Your task to perform on an android device: uninstall "NewsBreak: Local News & Alerts" Image 0: 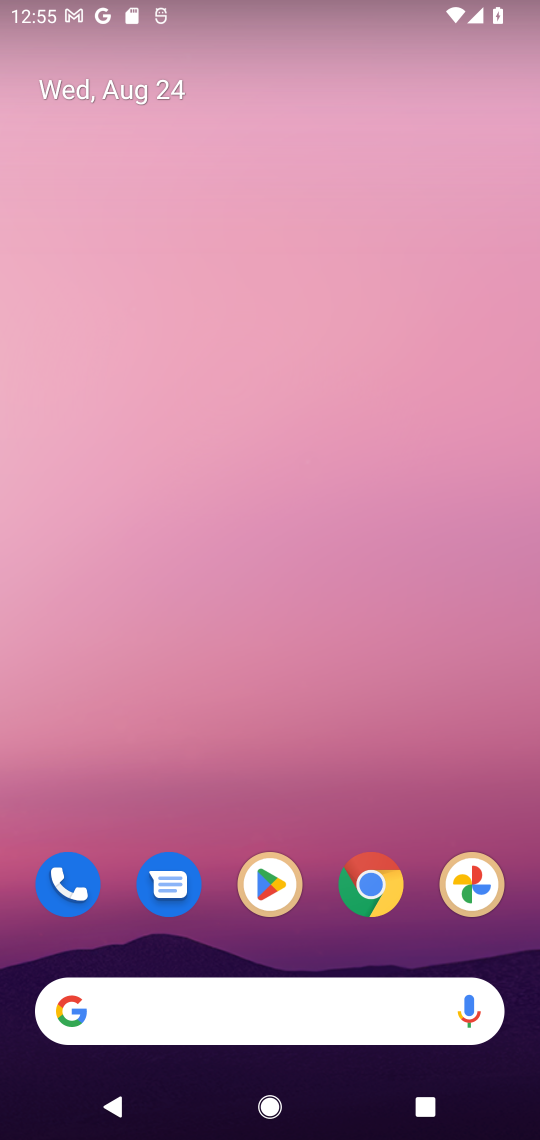
Step 0: drag from (261, 1009) to (221, 152)
Your task to perform on an android device: uninstall "NewsBreak: Local News & Alerts" Image 1: 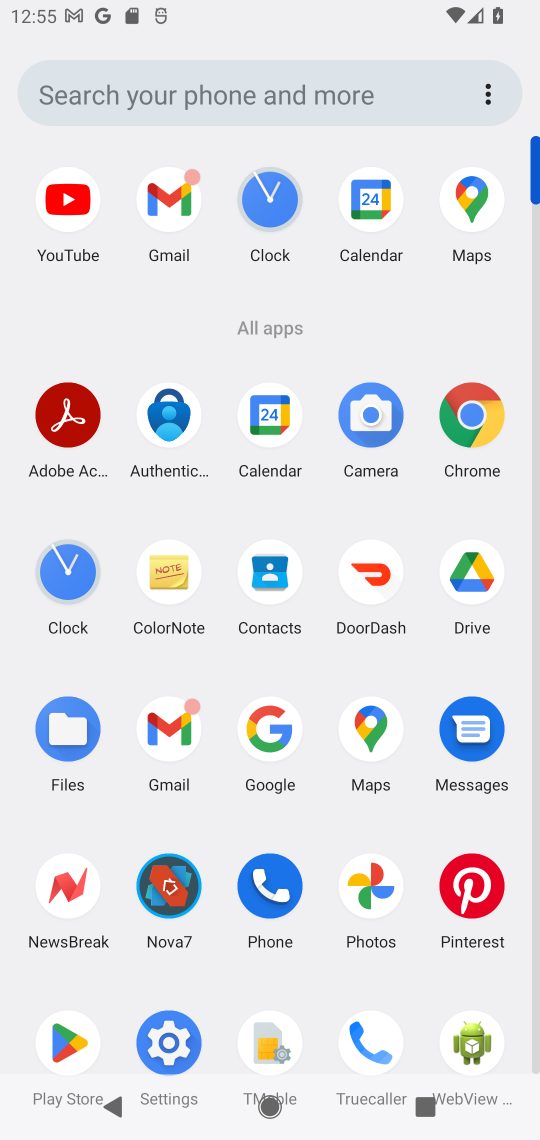
Step 1: click (78, 1044)
Your task to perform on an android device: uninstall "NewsBreak: Local News & Alerts" Image 2: 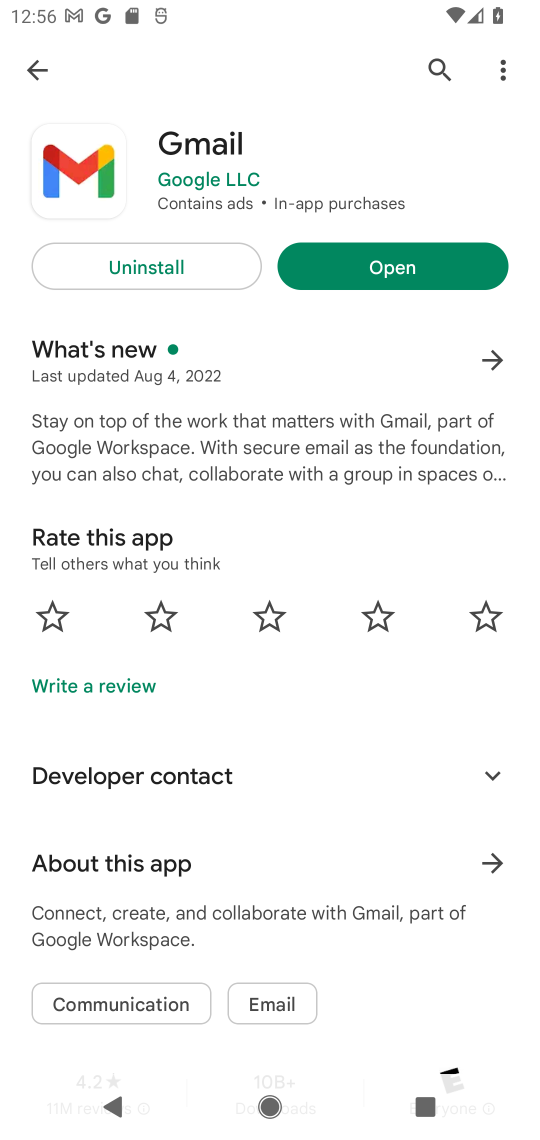
Step 2: press back button
Your task to perform on an android device: uninstall "NewsBreak: Local News & Alerts" Image 3: 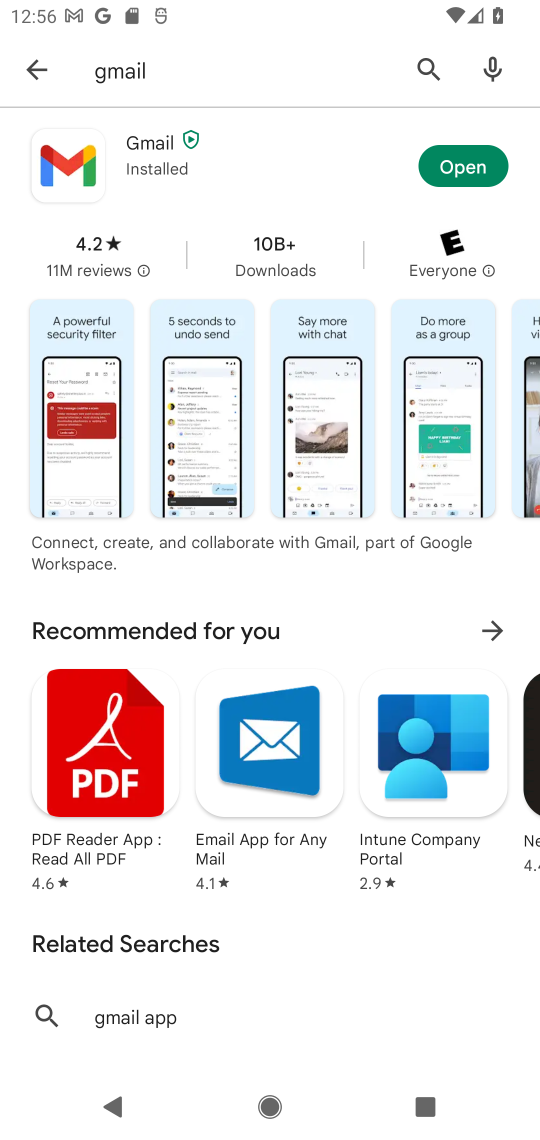
Step 3: press back button
Your task to perform on an android device: uninstall "NewsBreak: Local News & Alerts" Image 4: 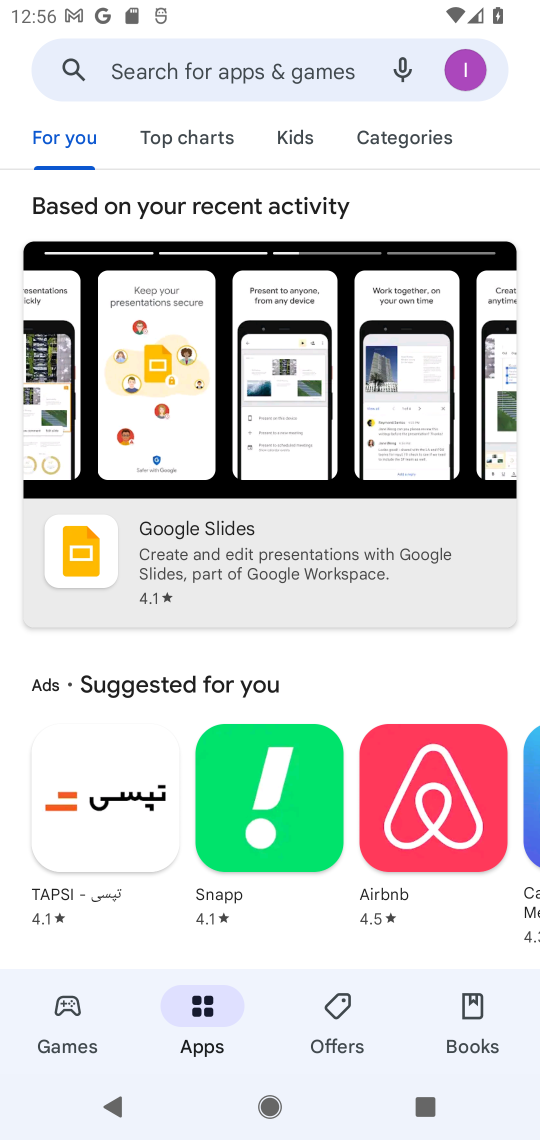
Step 4: click (245, 72)
Your task to perform on an android device: uninstall "NewsBreak: Local News & Alerts" Image 5: 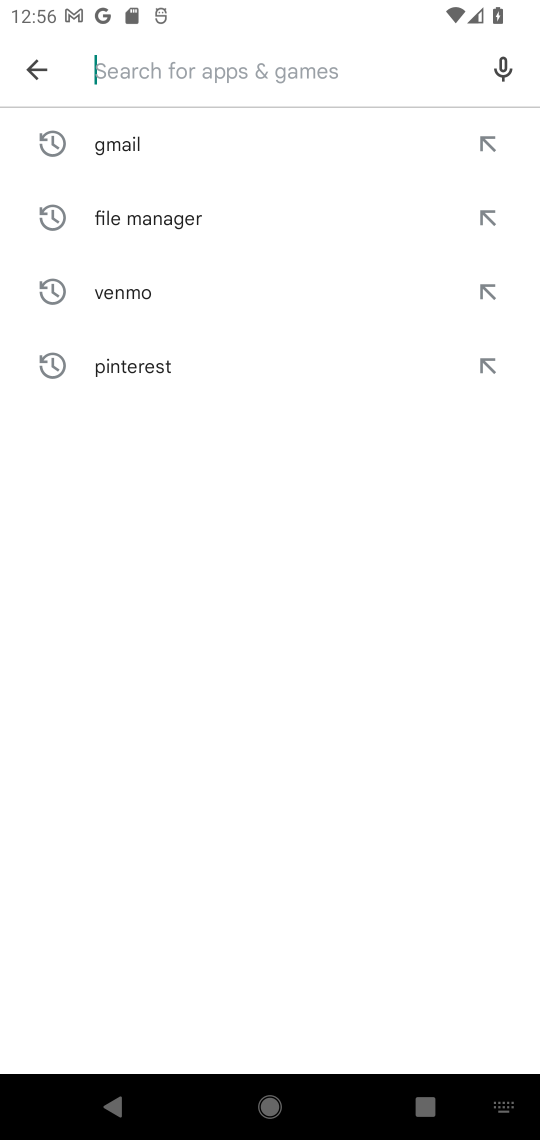
Step 5: type "NewsBreak: Local News & Alerts"
Your task to perform on an android device: uninstall "NewsBreak: Local News & Alerts" Image 6: 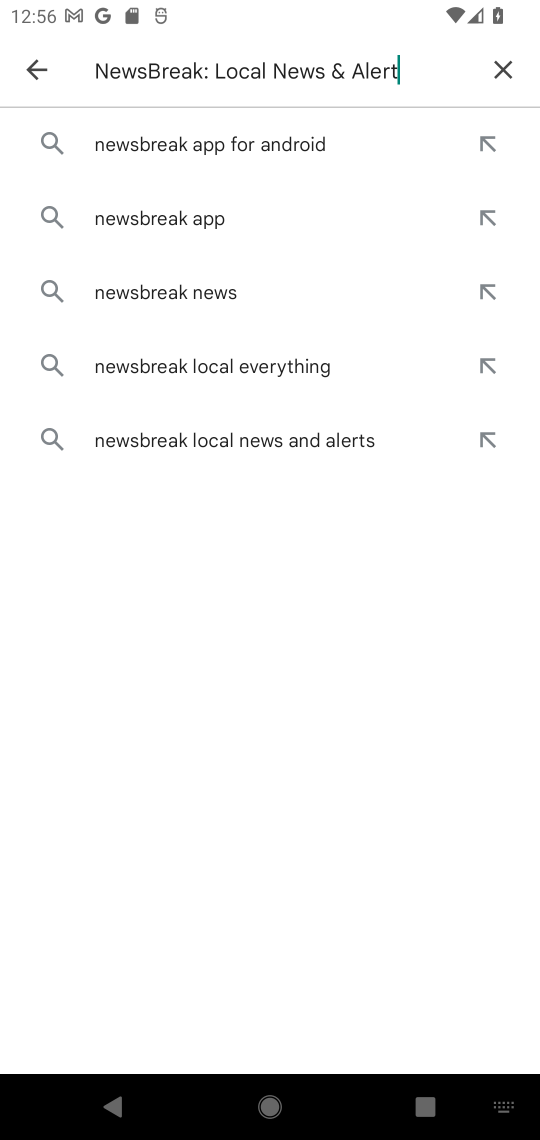
Step 6: type ""
Your task to perform on an android device: uninstall "NewsBreak: Local News & Alerts" Image 7: 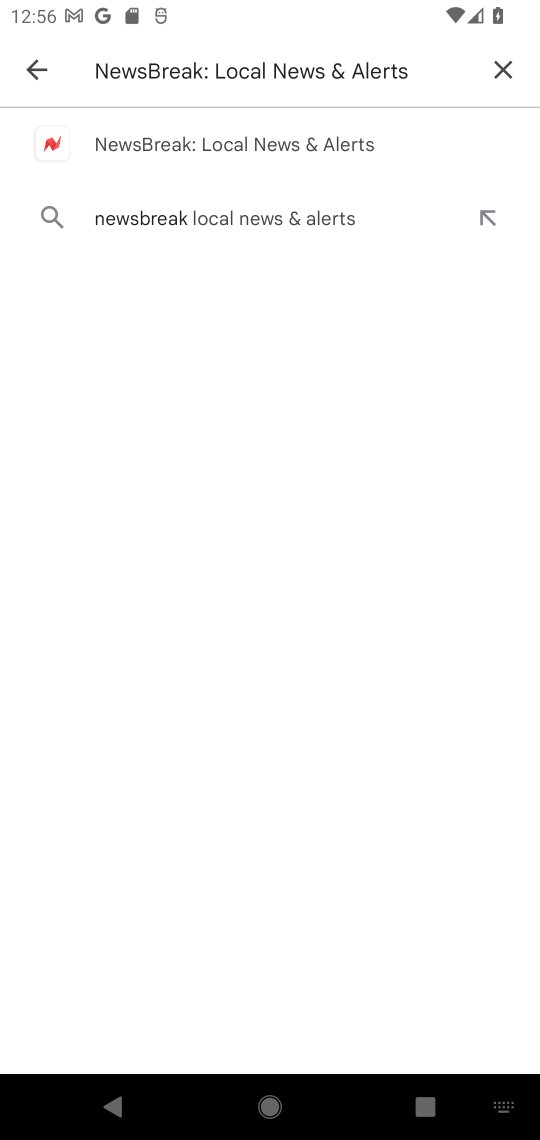
Step 7: click (164, 149)
Your task to perform on an android device: uninstall "NewsBreak: Local News & Alerts" Image 8: 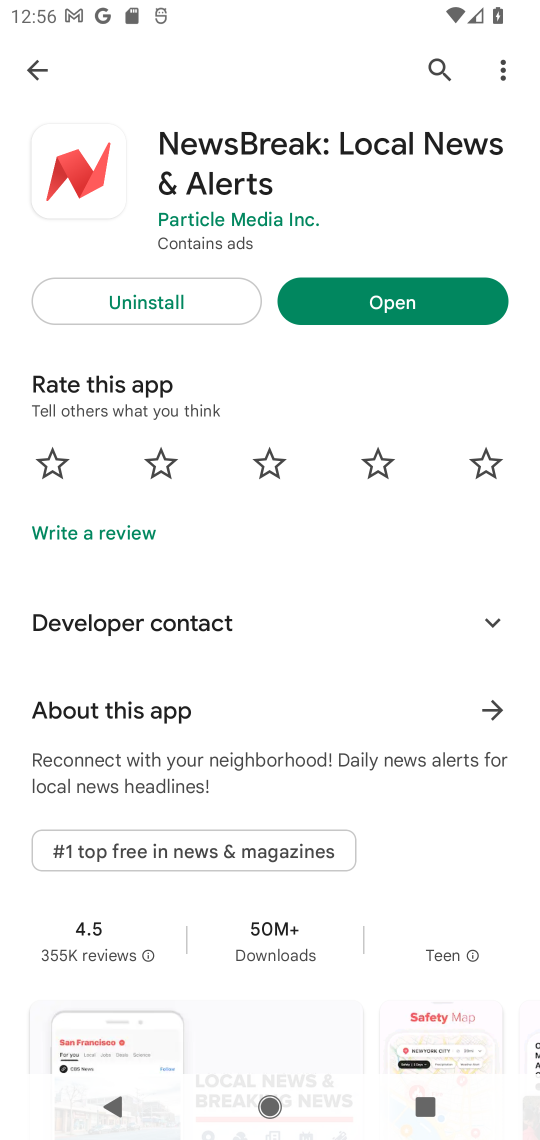
Step 8: click (147, 300)
Your task to perform on an android device: uninstall "NewsBreak: Local News & Alerts" Image 9: 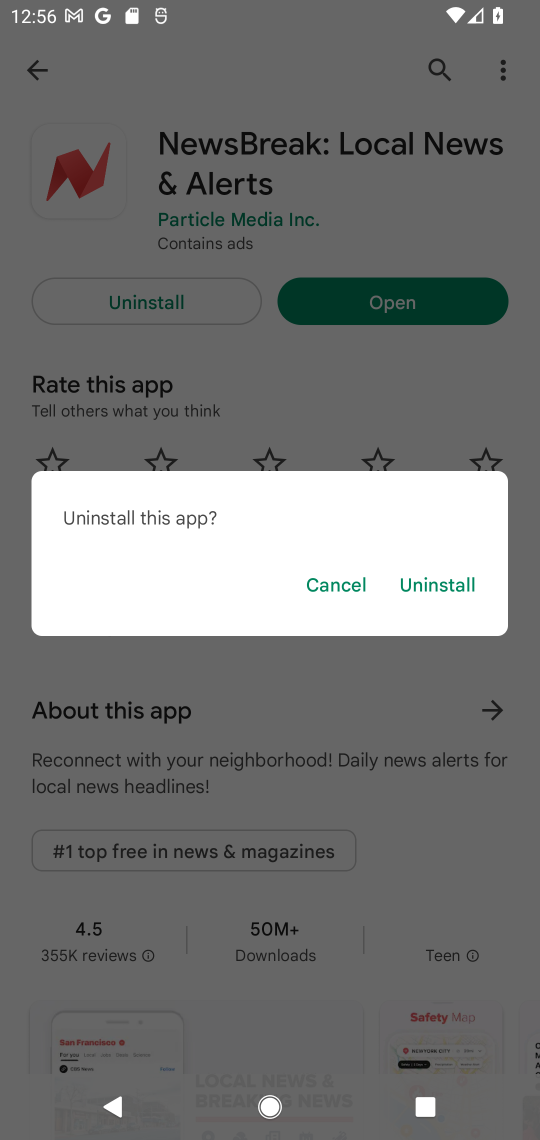
Step 9: click (463, 581)
Your task to perform on an android device: uninstall "NewsBreak: Local News & Alerts" Image 10: 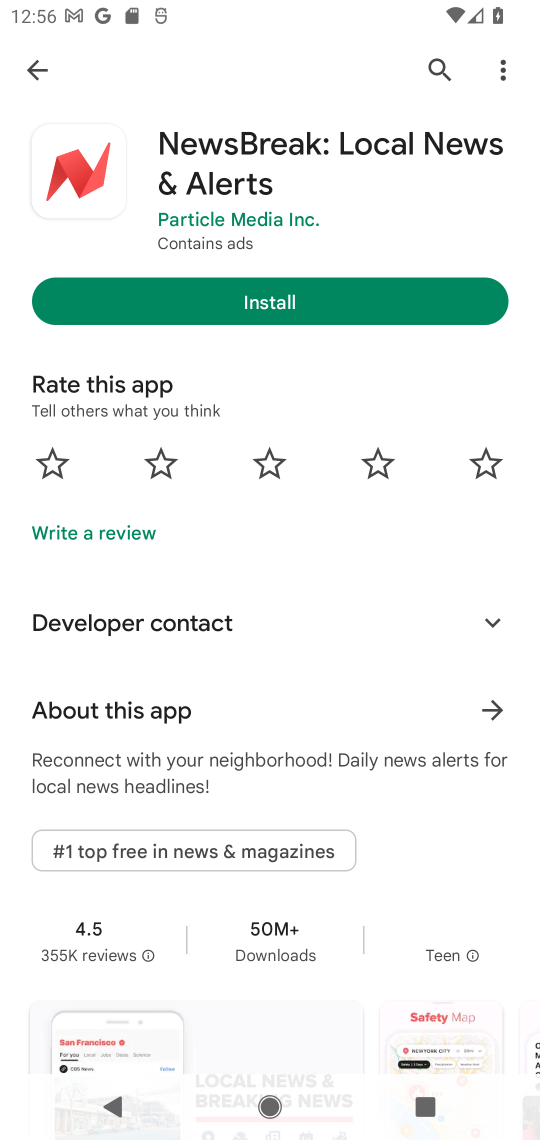
Step 10: task complete